Your task to perform on an android device: Go to calendar. Show me events next week Image 0: 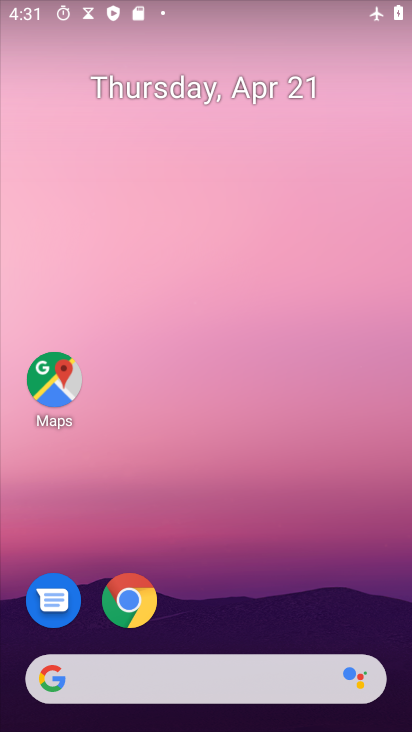
Step 0: drag from (237, 582) to (159, 90)
Your task to perform on an android device: Go to calendar. Show me events next week Image 1: 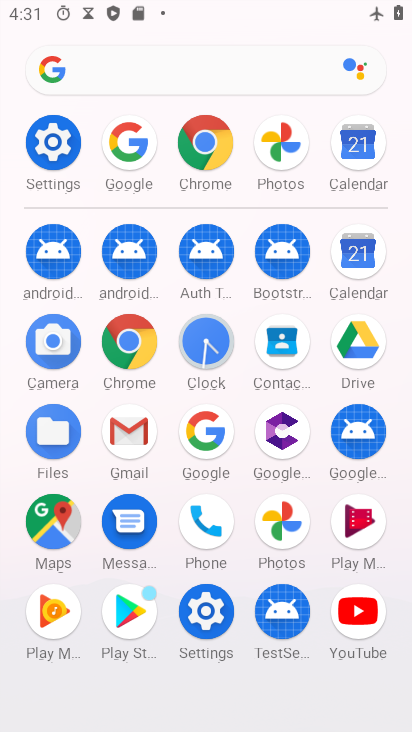
Step 1: click (361, 255)
Your task to perform on an android device: Go to calendar. Show me events next week Image 2: 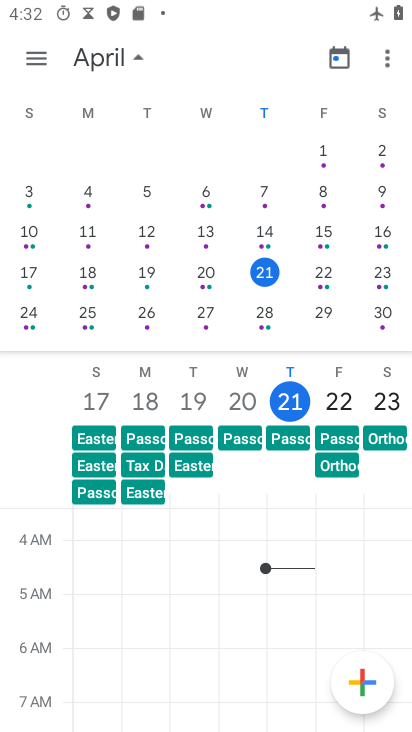
Step 2: click (342, 62)
Your task to perform on an android device: Go to calendar. Show me events next week Image 3: 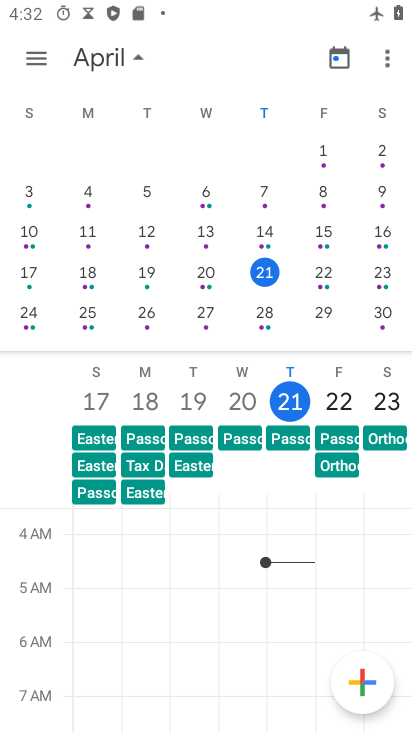
Step 3: click (147, 316)
Your task to perform on an android device: Go to calendar. Show me events next week Image 4: 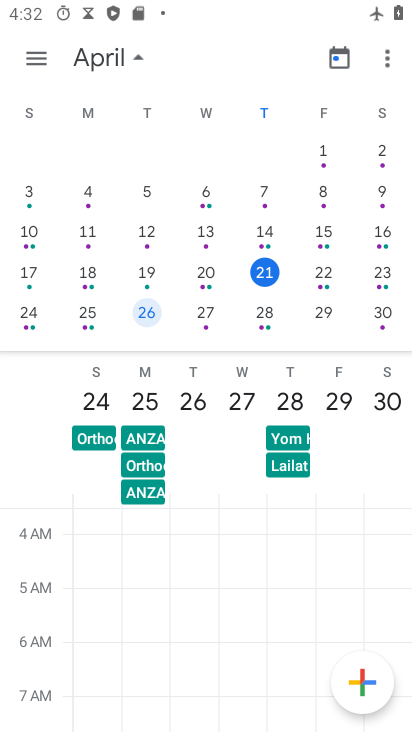
Step 4: click (38, 61)
Your task to perform on an android device: Go to calendar. Show me events next week Image 5: 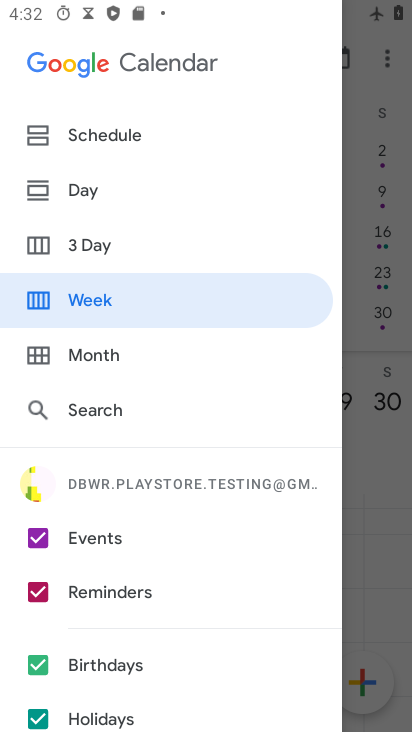
Step 5: click (99, 304)
Your task to perform on an android device: Go to calendar. Show me events next week Image 6: 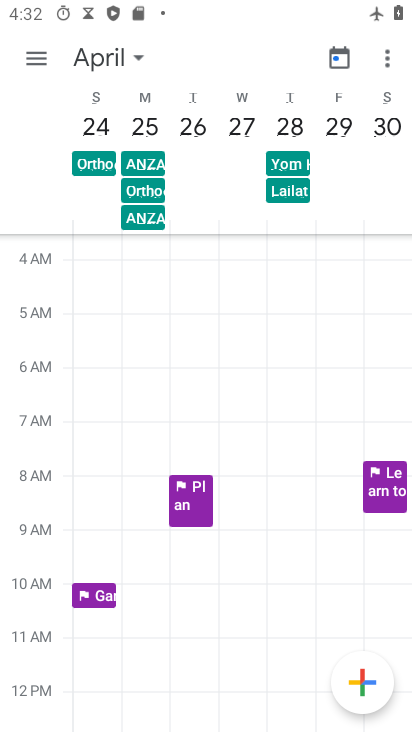
Step 6: click (43, 66)
Your task to perform on an android device: Go to calendar. Show me events next week Image 7: 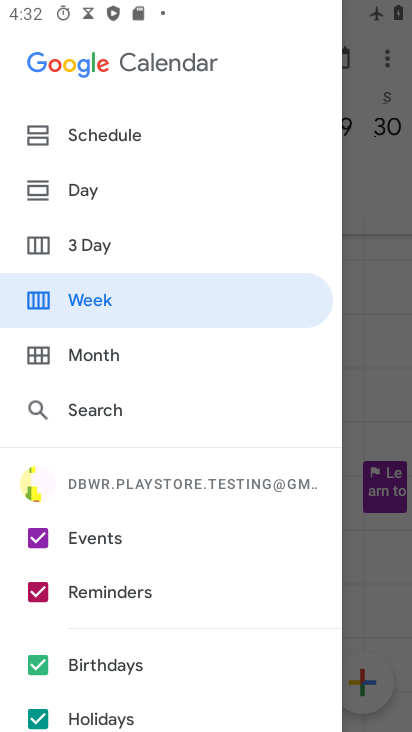
Step 7: task complete